Your task to perform on an android device: add a contact in the contacts app Image 0: 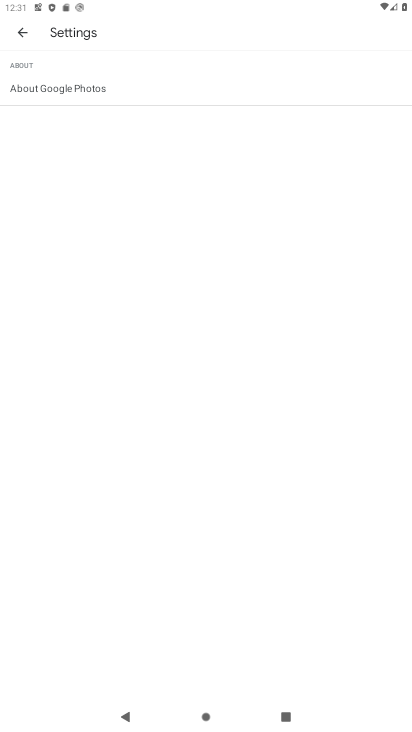
Step 0: press home button
Your task to perform on an android device: add a contact in the contacts app Image 1: 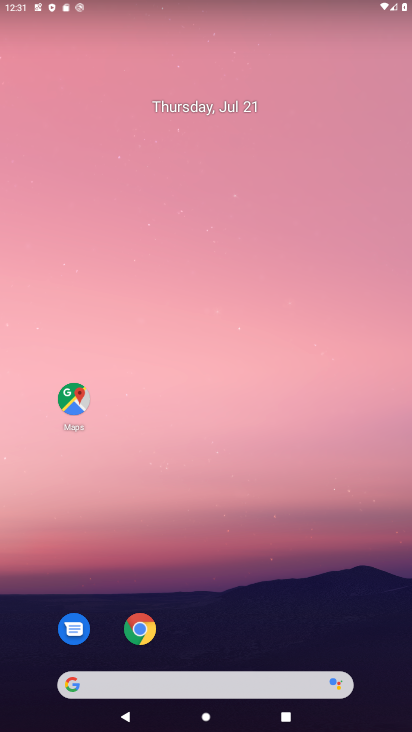
Step 1: drag from (282, 626) to (243, 62)
Your task to perform on an android device: add a contact in the contacts app Image 2: 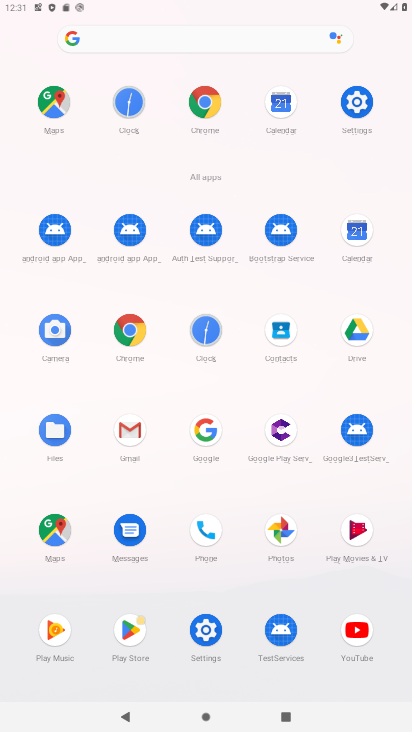
Step 2: click (285, 339)
Your task to perform on an android device: add a contact in the contacts app Image 3: 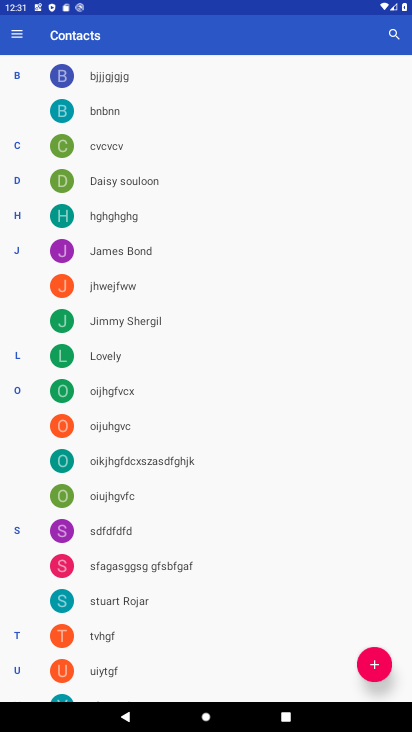
Step 3: click (374, 661)
Your task to perform on an android device: add a contact in the contacts app Image 4: 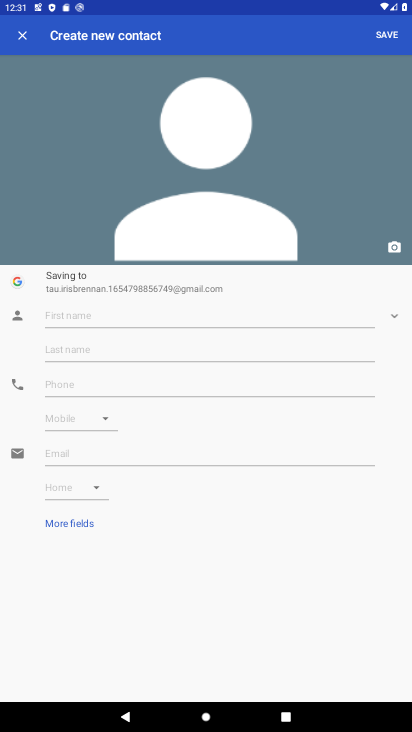
Step 4: click (169, 319)
Your task to perform on an android device: add a contact in the contacts app Image 5: 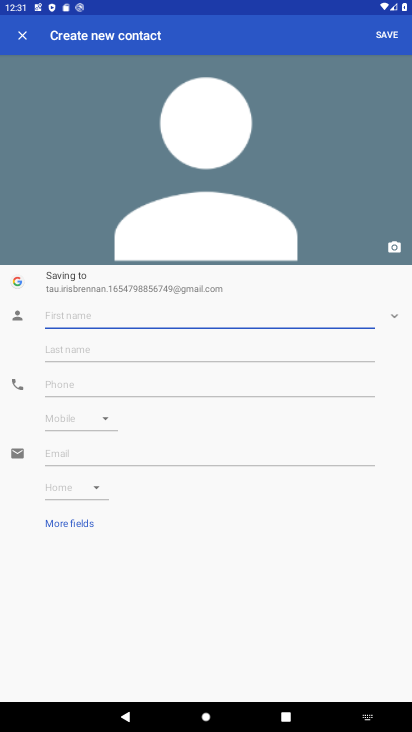
Step 5: type "ye khud"
Your task to perform on an android device: add a contact in the contacts app Image 6: 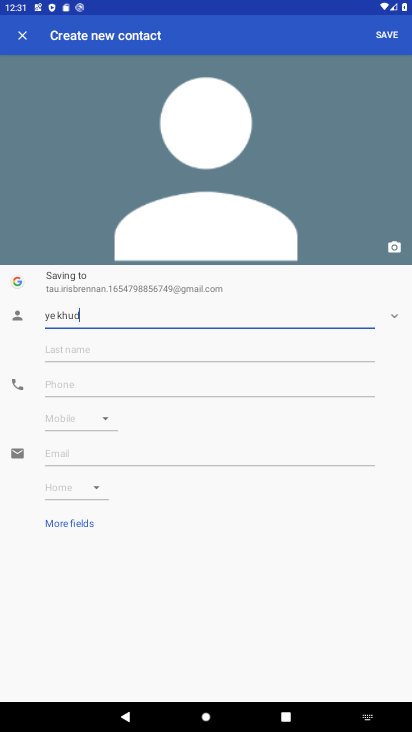
Step 6: click (395, 37)
Your task to perform on an android device: add a contact in the contacts app Image 7: 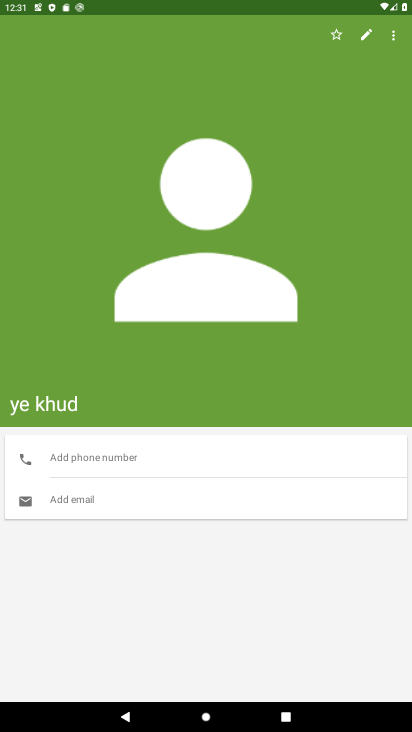
Step 7: task complete